Your task to perform on an android device: Open Reddit.com Image 0: 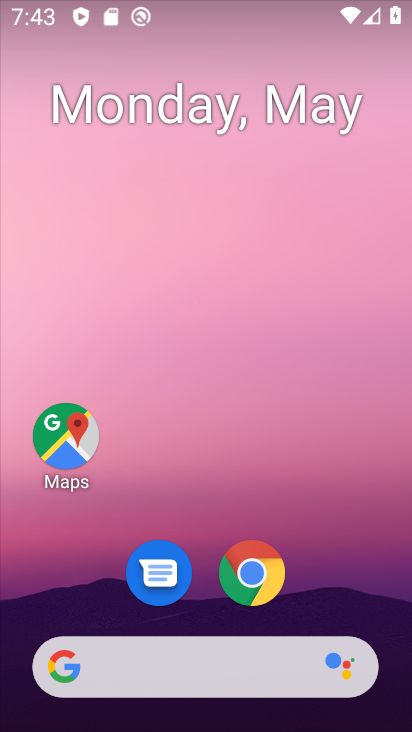
Step 0: click (271, 584)
Your task to perform on an android device: Open Reddit.com Image 1: 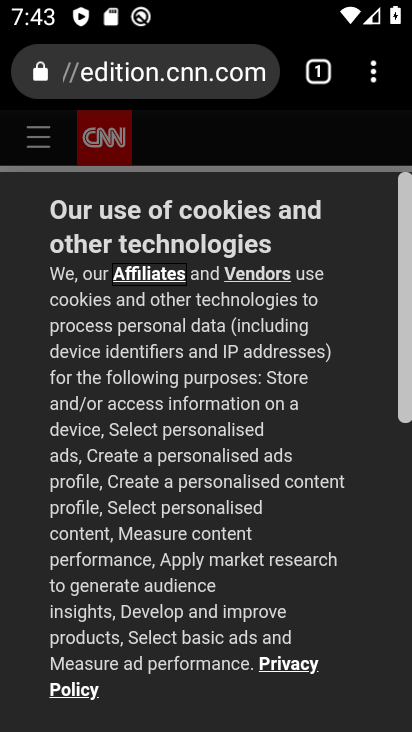
Step 1: click (159, 65)
Your task to perform on an android device: Open Reddit.com Image 2: 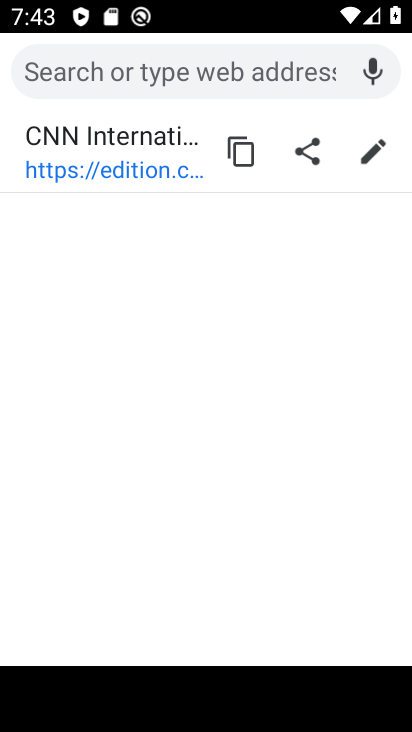
Step 2: type "reddit.com"
Your task to perform on an android device: Open Reddit.com Image 3: 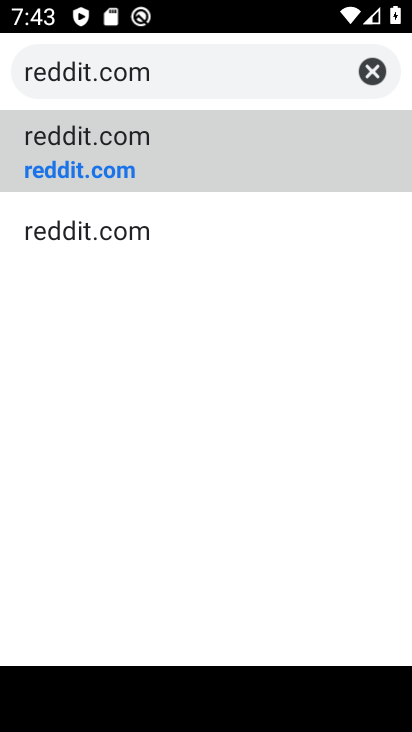
Step 3: click (155, 163)
Your task to perform on an android device: Open Reddit.com Image 4: 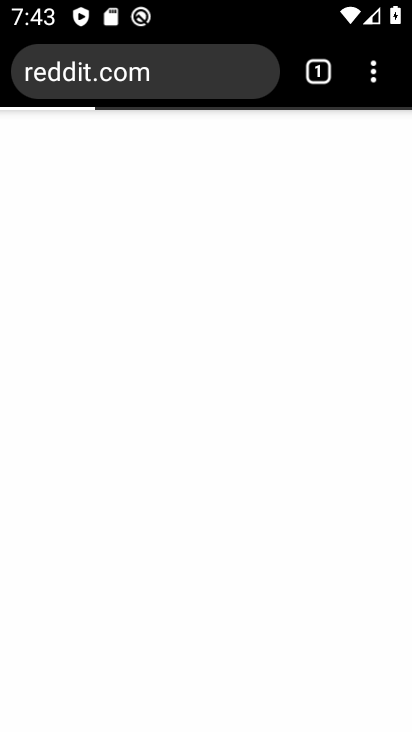
Step 4: task complete